Your task to perform on an android device: move a message to another label in the gmail app Image 0: 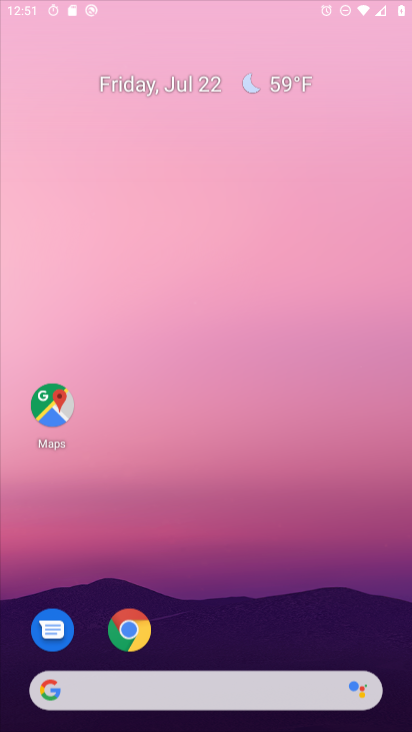
Step 0: press home button
Your task to perform on an android device: move a message to another label in the gmail app Image 1: 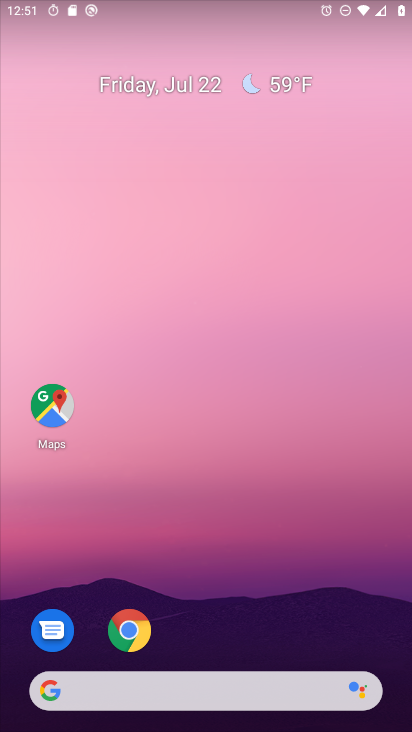
Step 1: drag from (207, 648) to (154, 155)
Your task to perform on an android device: move a message to another label in the gmail app Image 2: 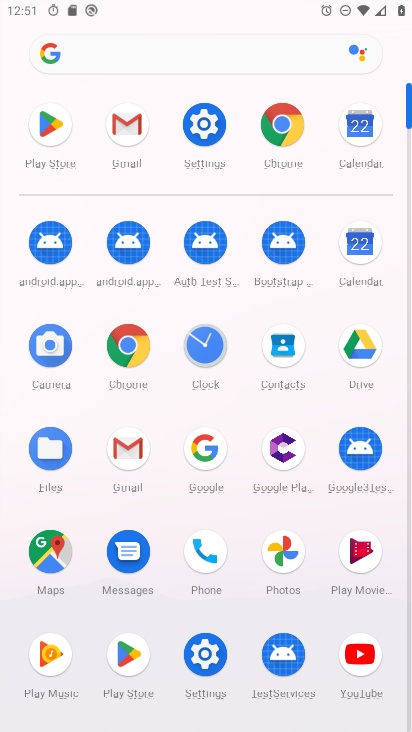
Step 2: click (131, 128)
Your task to perform on an android device: move a message to another label in the gmail app Image 3: 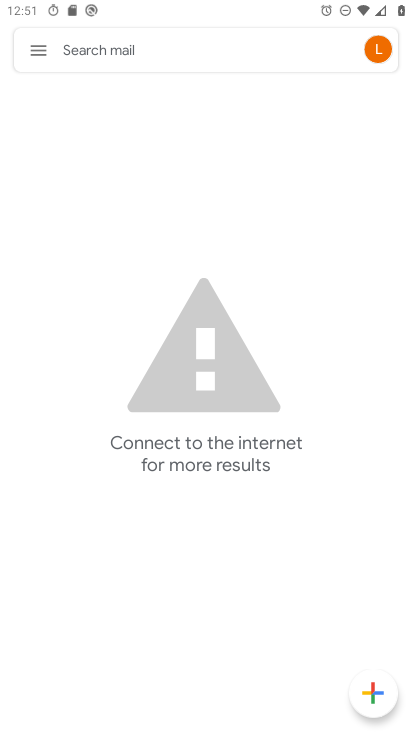
Step 3: click (36, 48)
Your task to perform on an android device: move a message to another label in the gmail app Image 4: 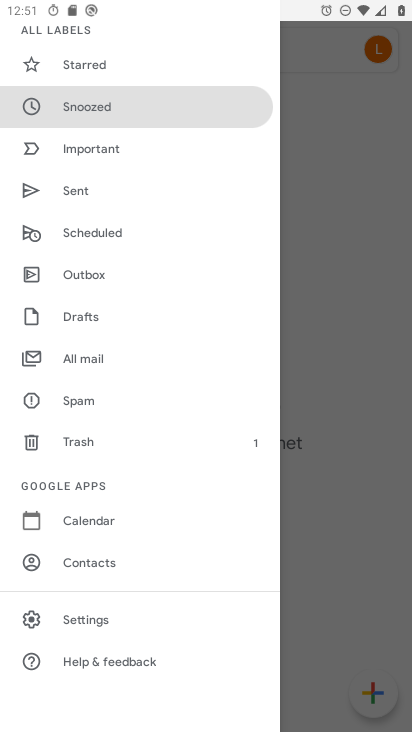
Step 4: click (68, 370)
Your task to perform on an android device: move a message to another label in the gmail app Image 5: 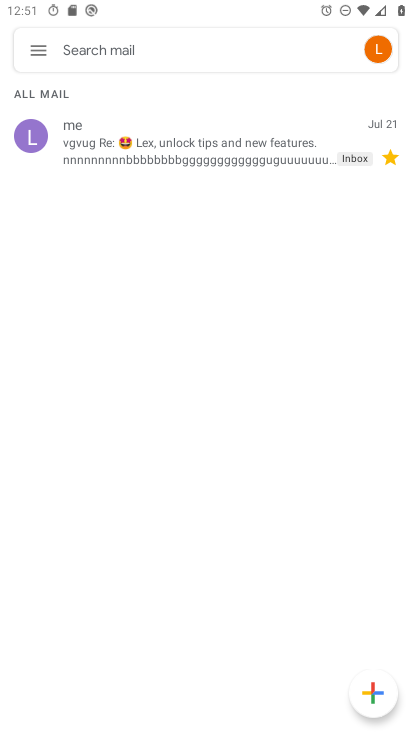
Step 5: click (194, 154)
Your task to perform on an android device: move a message to another label in the gmail app Image 6: 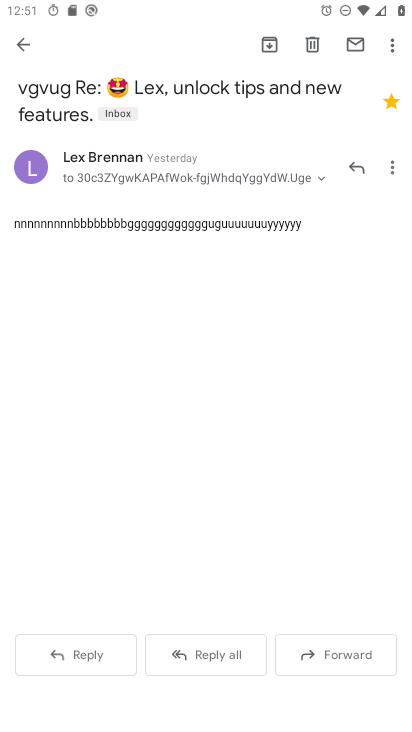
Step 6: click (393, 41)
Your task to perform on an android device: move a message to another label in the gmail app Image 7: 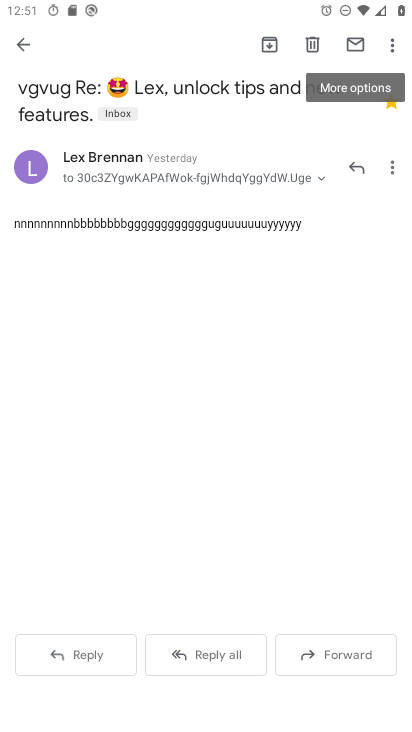
Step 7: click (393, 41)
Your task to perform on an android device: move a message to another label in the gmail app Image 8: 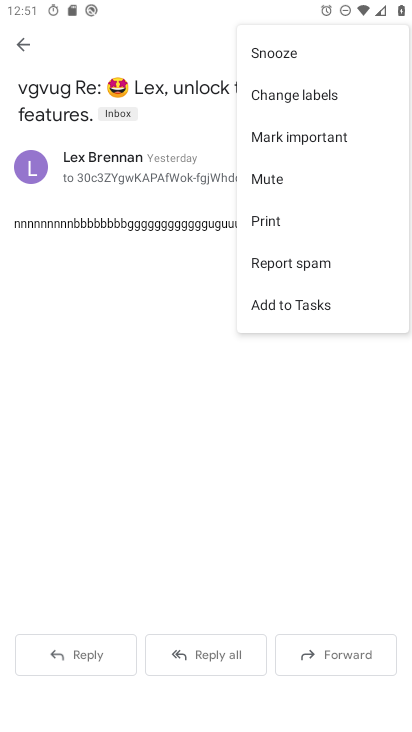
Step 8: click (300, 93)
Your task to perform on an android device: move a message to another label in the gmail app Image 9: 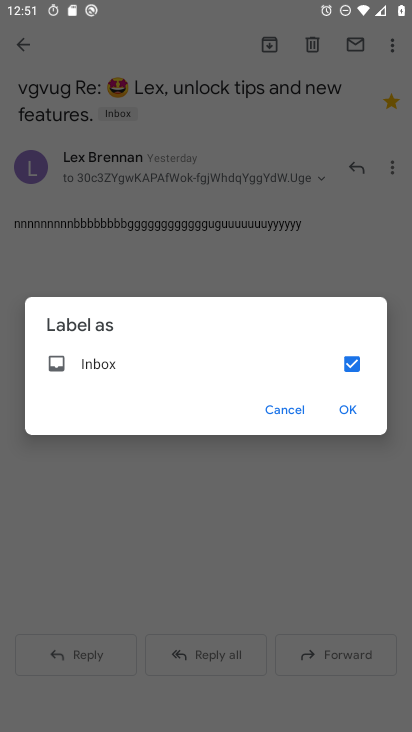
Step 9: click (355, 407)
Your task to perform on an android device: move a message to another label in the gmail app Image 10: 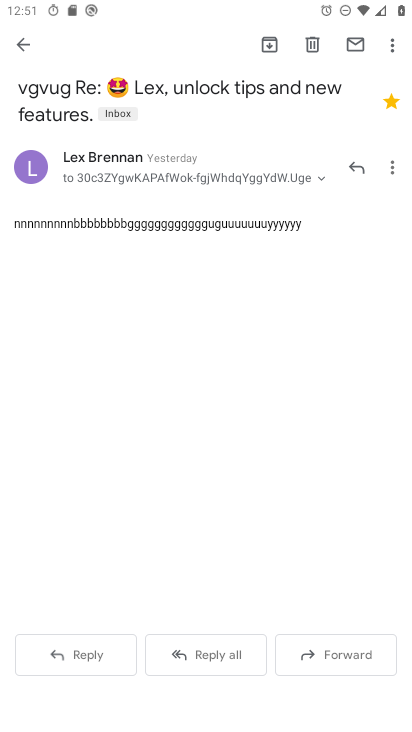
Step 10: task complete